Your task to perform on an android device: turn on notifications settings in the gmail app Image 0: 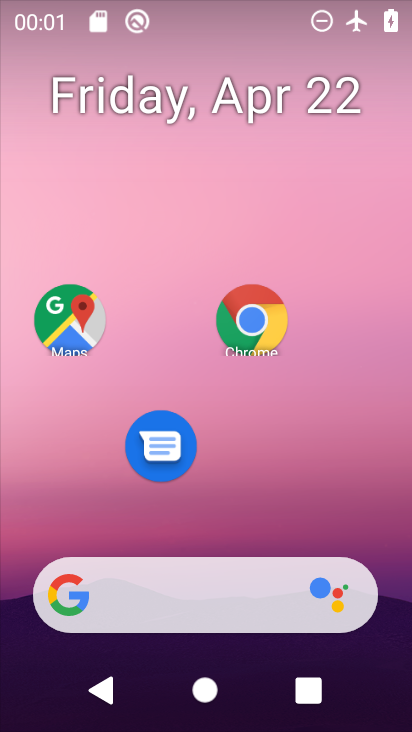
Step 0: drag from (207, 458) to (197, 138)
Your task to perform on an android device: turn on notifications settings in the gmail app Image 1: 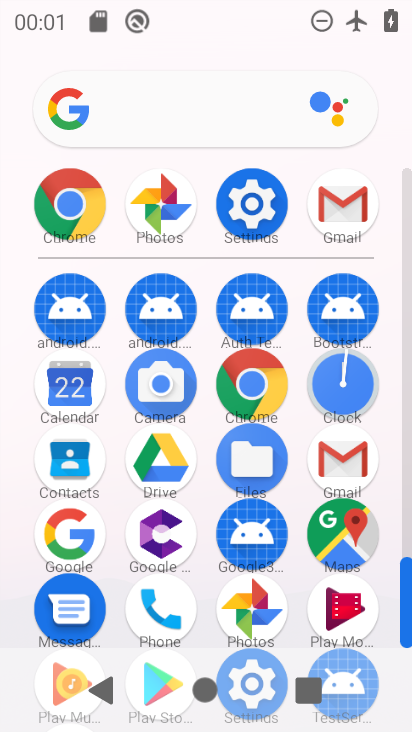
Step 1: click (341, 453)
Your task to perform on an android device: turn on notifications settings in the gmail app Image 2: 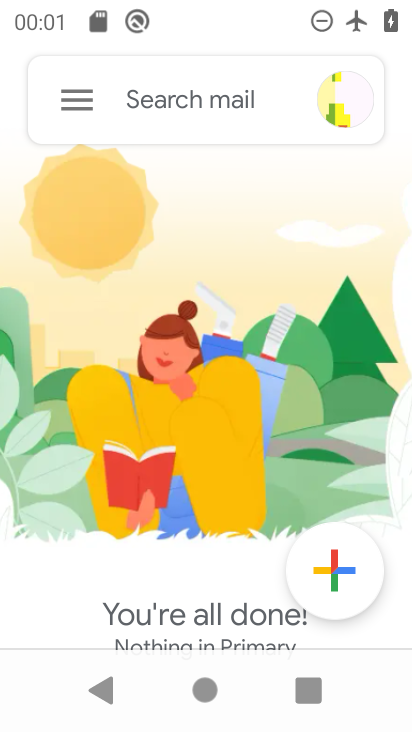
Step 2: drag from (208, 504) to (214, 256)
Your task to perform on an android device: turn on notifications settings in the gmail app Image 3: 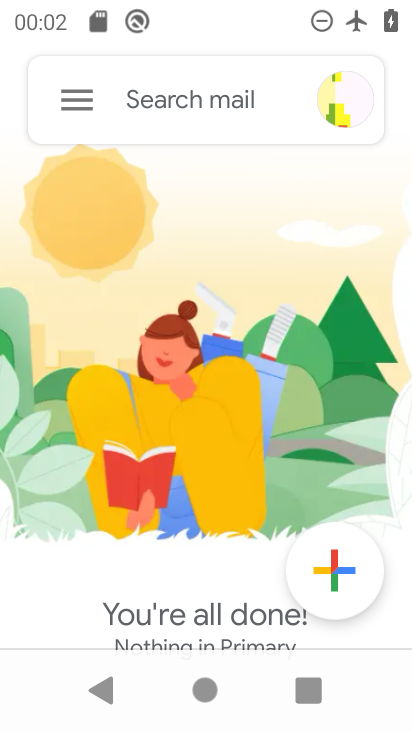
Step 3: drag from (220, 504) to (230, 243)
Your task to perform on an android device: turn on notifications settings in the gmail app Image 4: 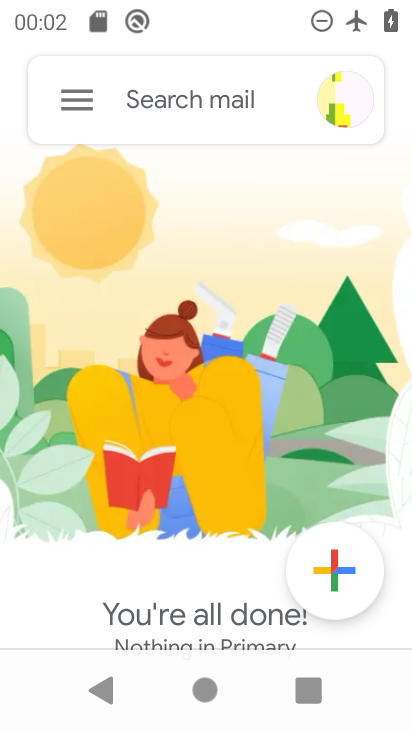
Step 4: click (61, 104)
Your task to perform on an android device: turn on notifications settings in the gmail app Image 5: 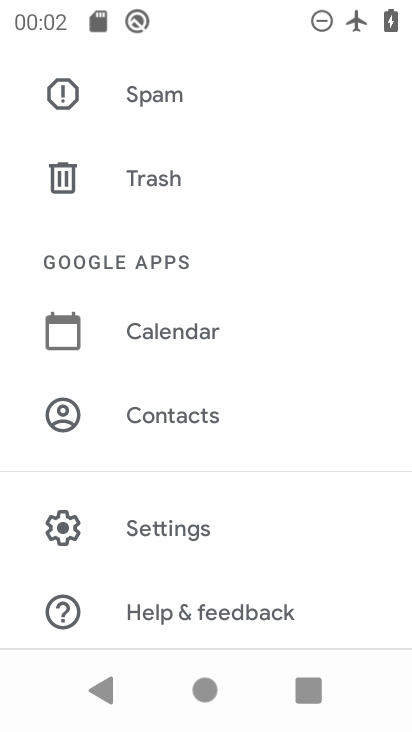
Step 5: click (212, 541)
Your task to perform on an android device: turn on notifications settings in the gmail app Image 6: 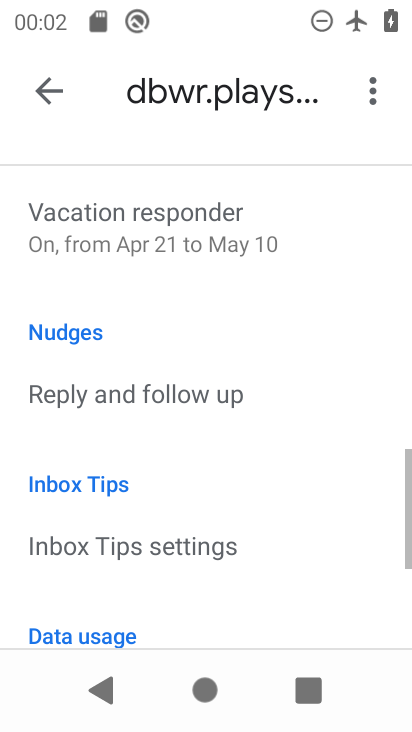
Step 6: drag from (215, 431) to (213, 22)
Your task to perform on an android device: turn on notifications settings in the gmail app Image 7: 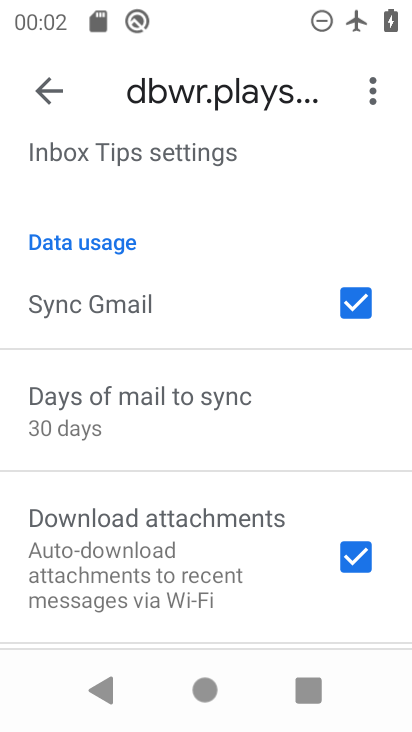
Step 7: drag from (180, 443) to (191, 311)
Your task to perform on an android device: turn on notifications settings in the gmail app Image 8: 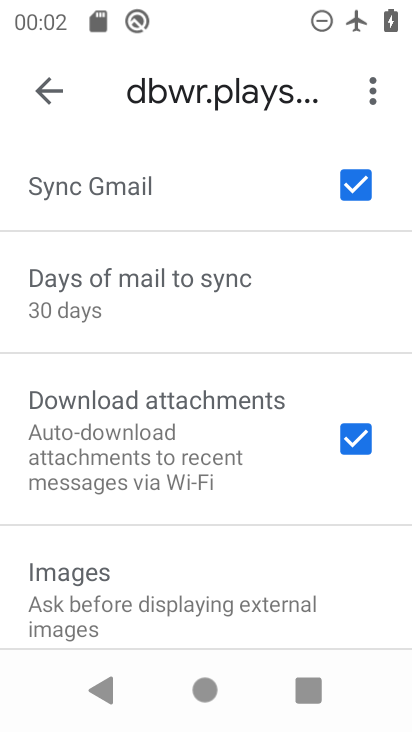
Step 8: drag from (159, 590) to (205, 370)
Your task to perform on an android device: turn on notifications settings in the gmail app Image 9: 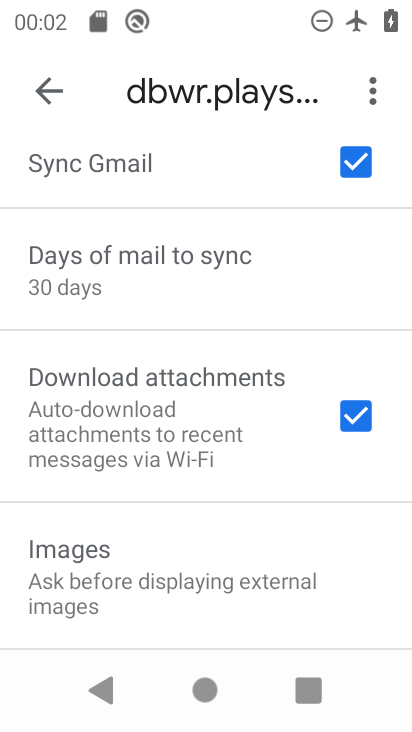
Step 9: drag from (212, 304) to (239, 646)
Your task to perform on an android device: turn on notifications settings in the gmail app Image 10: 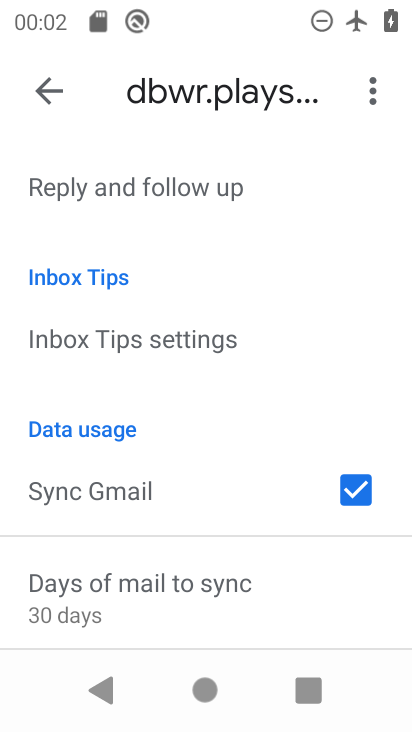
Step 10: drag from (265, 524) to (274, 164)
Your task to perform on an android device: turn on notifications settings in the gmail app Image 11: 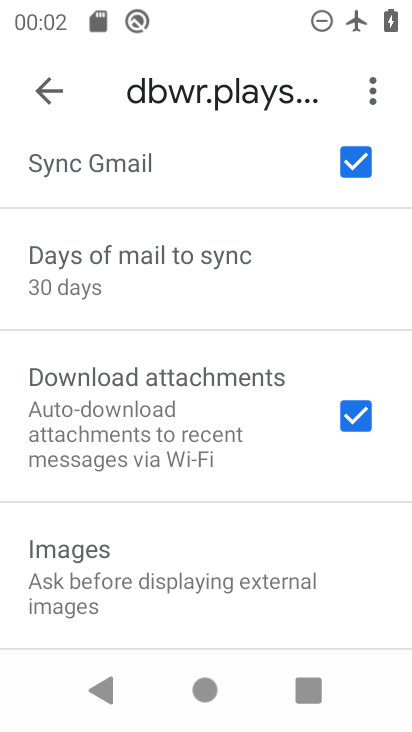
Step 11: drag from (235, 457) to (241, 208)
Your task to perform on an android device: turn on notifications settings in the gmail app Image 12: 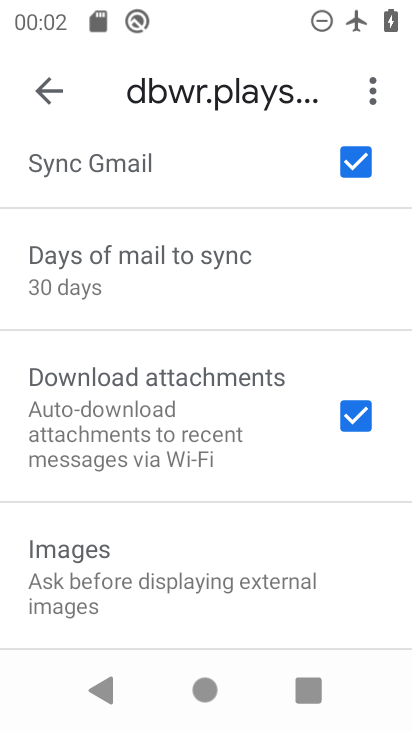
Step 12: click (48, 83)
Your task to perform on an android device: turn on notifications settings in the gmail app Image 13: 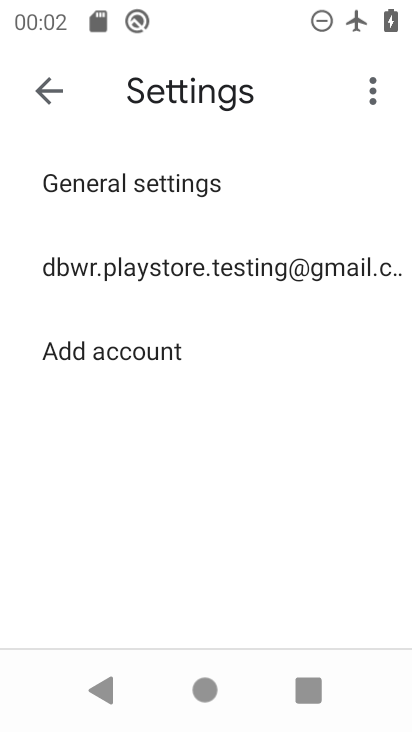
Step 13: click (149, 281)
Your task to perform on an android device: turn on notifications settings in the gmail app Image 14: 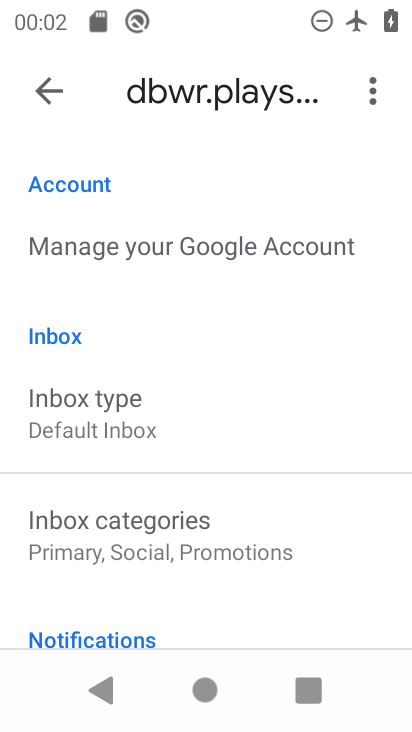
Step 14: drag from (247, 543) to (238, 184)
Your task to perform on an android device: turn on notifications settings in the gmail app Image 15: 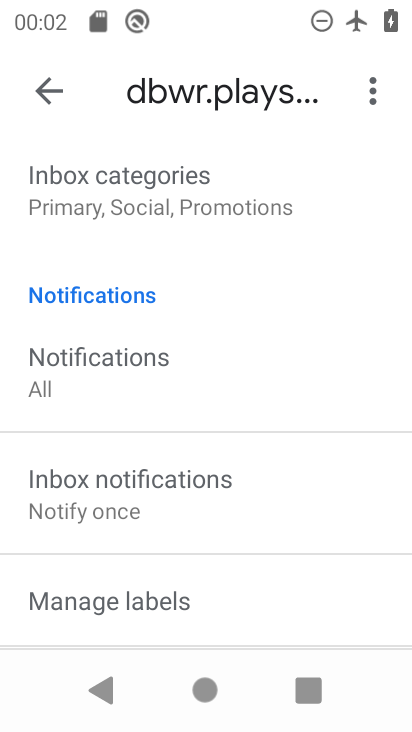
Step 15: drag from (165, 577) to (216, 210)
Your task to perform on an android device: turn on notifications settings in the gmail app Image 16: 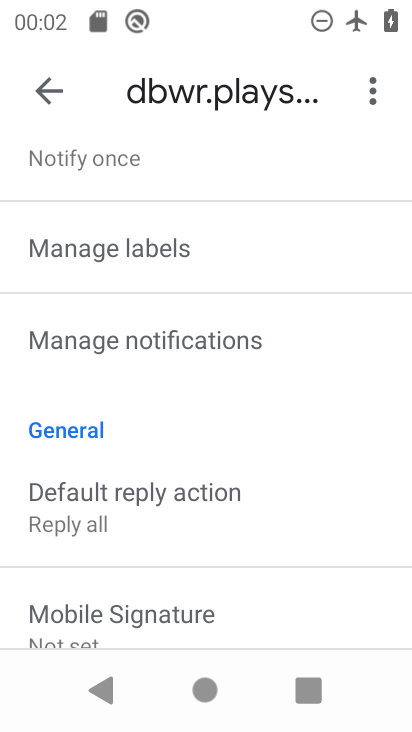
Step 16: click (192, 362)
Your task to perform on an android device: turn on notifications settings in the gmail app Image 17: 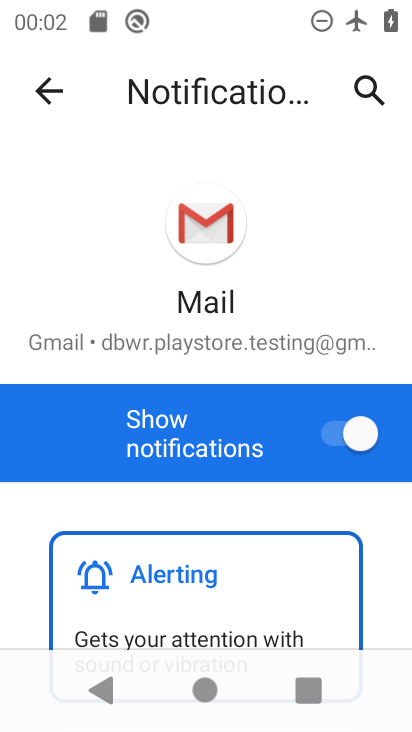
Step 17: drag from (246, 495) to (252, 233)
Your task to perform on an android device: turn on notifications settings in the gmail app Image 18: 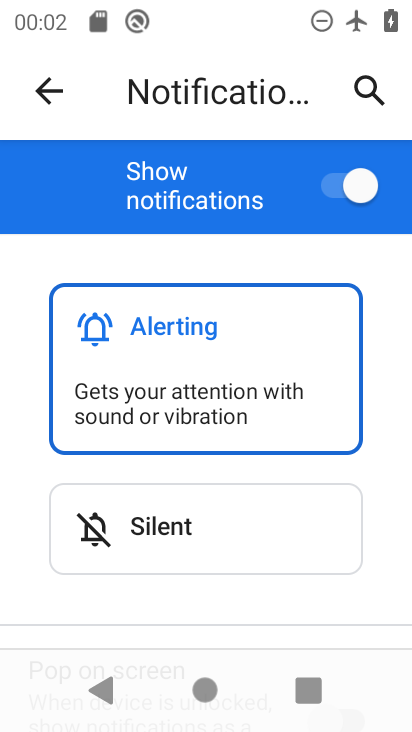
Step 18: drag from (281, 595) to (253, 229)
Your task to perform on an android device: turn on notifications settings in the gmail app Image 19: 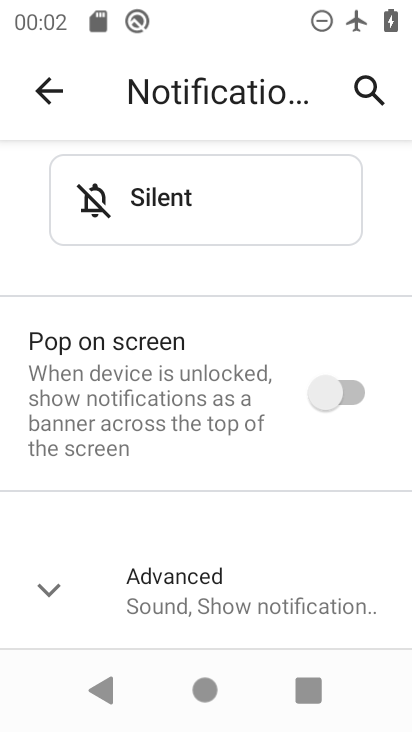
Step 19: drag from (259, 519) to (260, 333)
Your task to perform on an android device: turn on notifications settings in the gmail app Image 20: 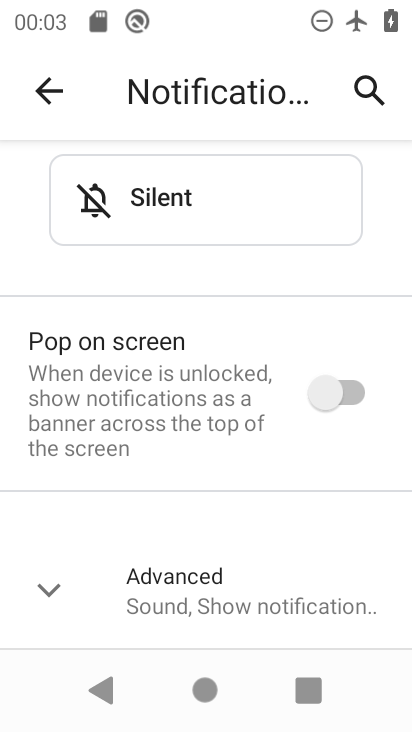
Step 20: click (186, 589)
Your task to perform on an android device: turn on notifications settings in the gmail app Image 21: 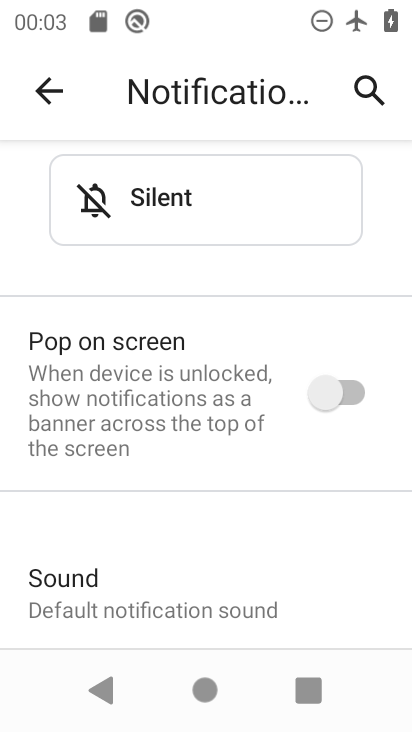
Step 21: task complete